Your task to perform on an android device: Go to display settings Image 0: 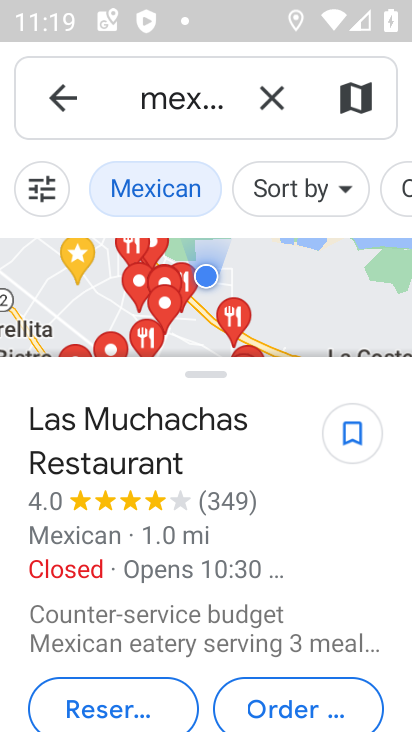
Step 0: press home button
Your task to perform on an android device: Go to display settings Image 1: 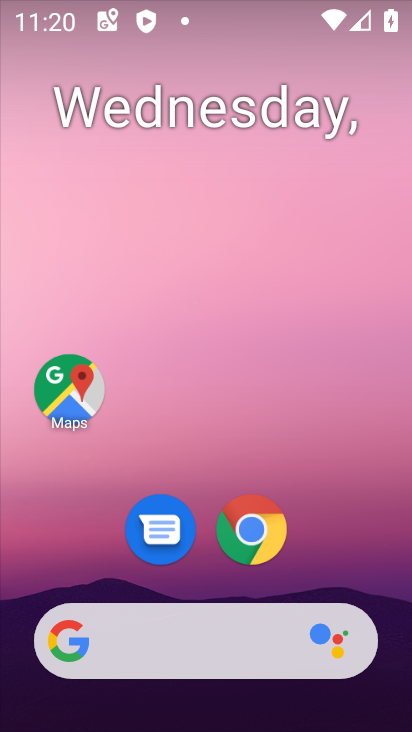
Step 1: drag from (177, 583) to (166, 0)
Your task to perform on an android device: Go to display settings Image 2: 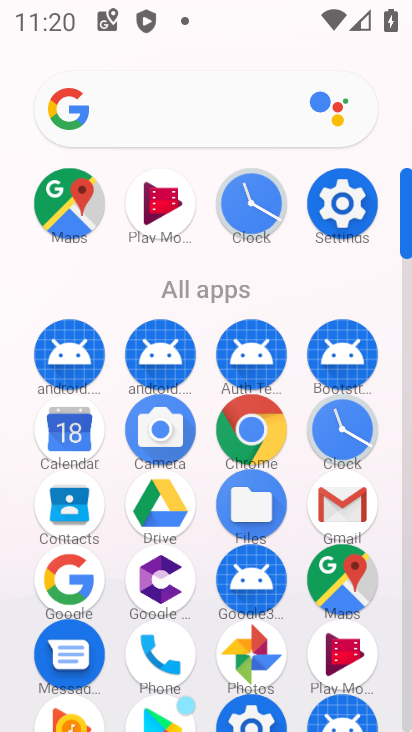
Step 2: click (329, 207)
Your task to perform on an android device: Go to display settings Image 3: 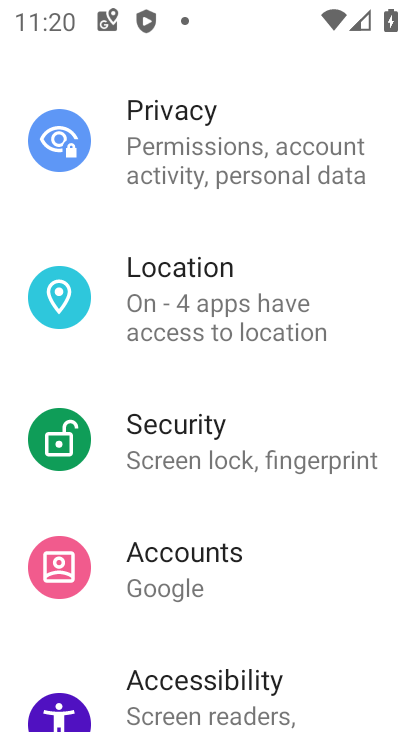
Step 3: drag from (203, 205) to (169, 674)
Your task to perform on an android device: Go to display settings Image 4: 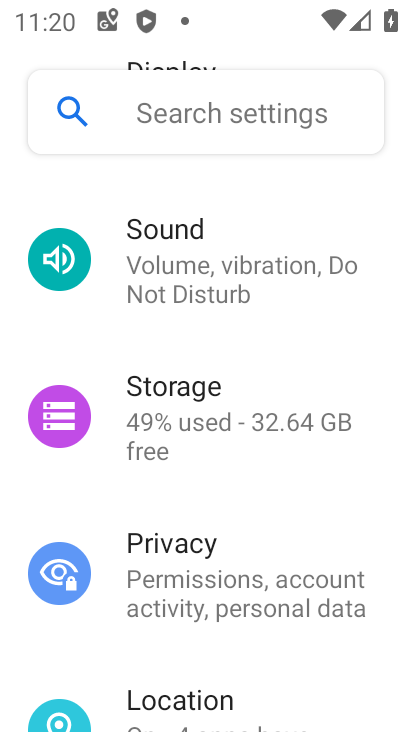
Step 4: drag from (169, 197) to (178, 391)
Your task to perform on an android device: Go to display settings Image 5: 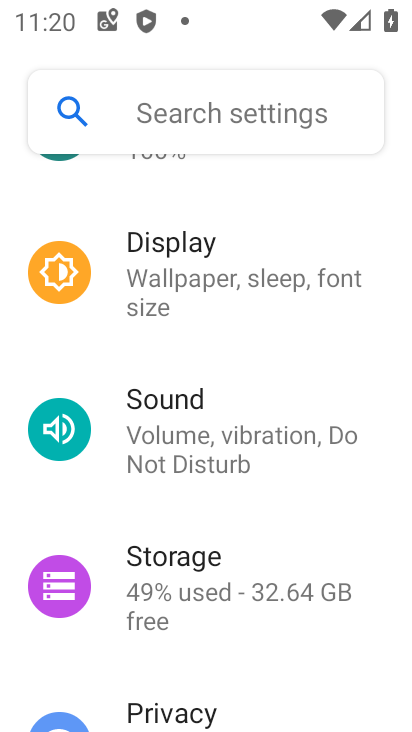
Step 5: click (163, 311)
Your task to perform on an android device: Go to display settings Image 6: 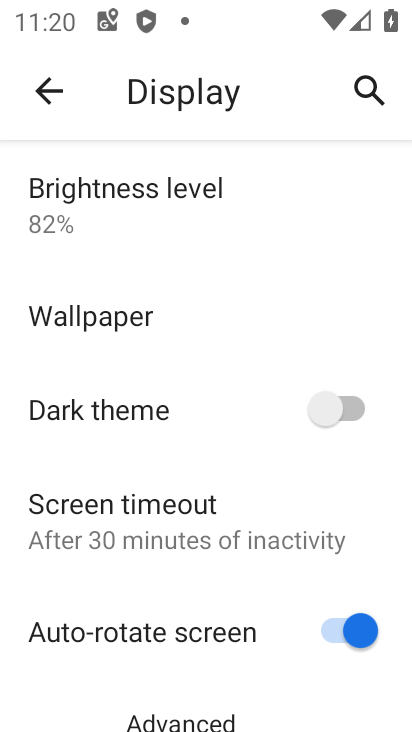
Step 6: click (143, 706)
Your task to perform on an android device: Go to display settings Image 7: 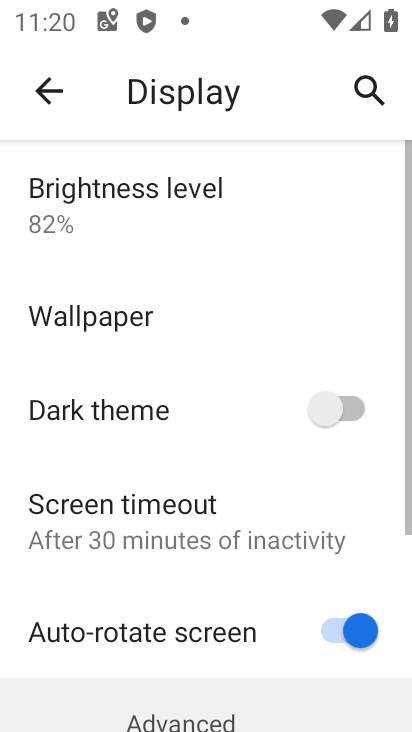
Step 7: task complete